Your task to perform on an android device: all mails in gmail Image 0: 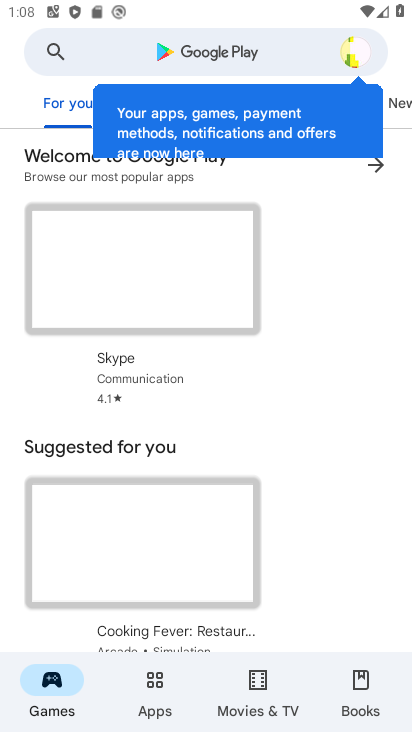
Step 0: press back button
Your task to perform on an android device: all mails in gmail Image 1: 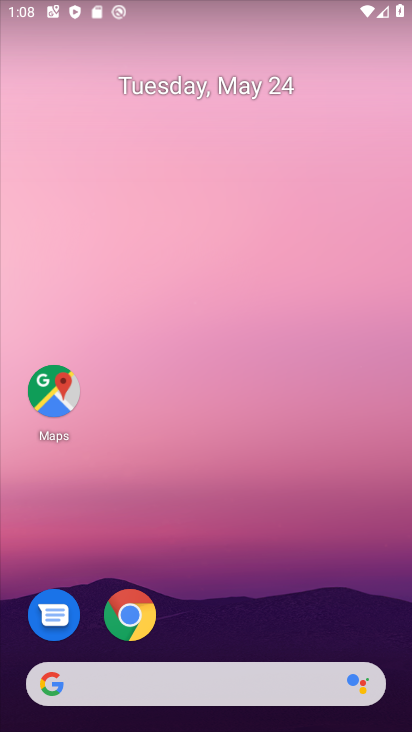
Step 1: drag from (195, 615) to (257, 119)
Your task to perform on an android device: all mails in gmail Image 2: 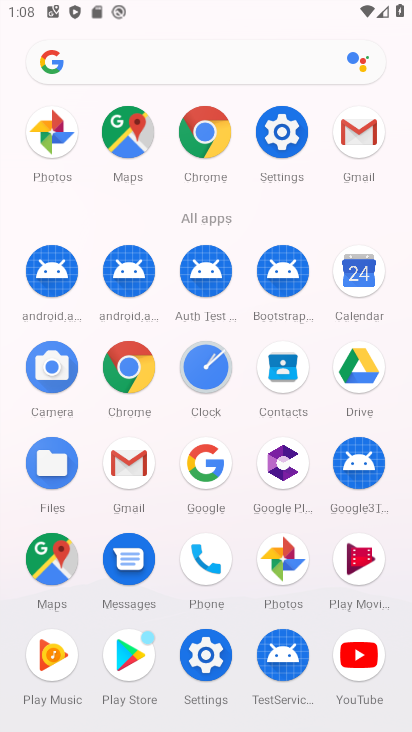
Step 2: click (346, 132)
Your task to perform on an android device: all mails in gmail Image 3: 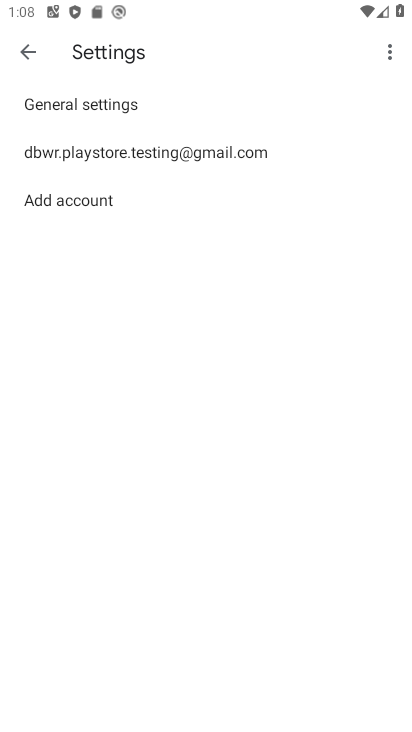
Step 3: click (22, 32)
Your task to perform on an android device: all mails in gmail Image 4: 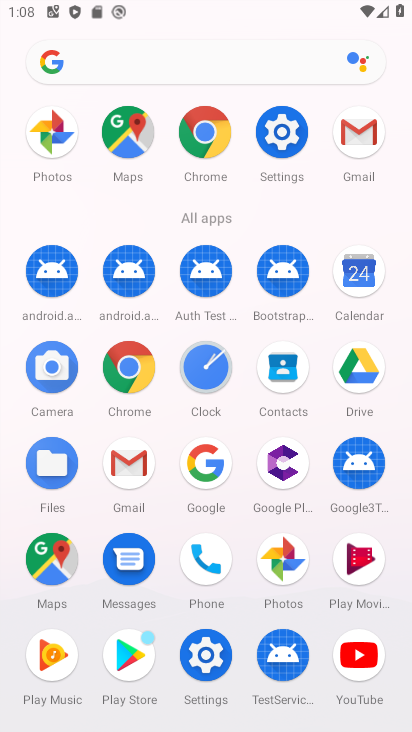
Step 4: click (377, 142)
Your task to perform on an android device: all mails in gmail Image 5: 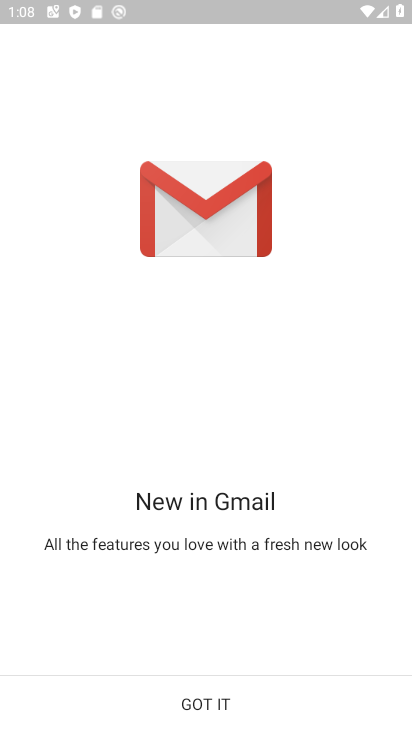
Step 5: click (202, 716)
Your task to perform on an android device: all mails in gmail Image 6: 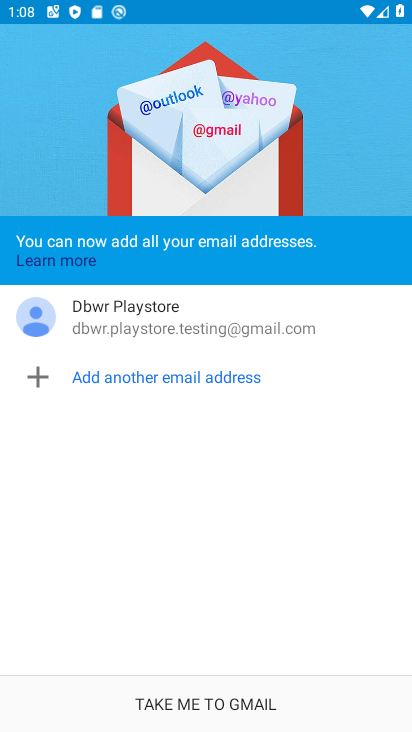
Step 6: click (200, 711)
Your task to perform on an android device: all mails in gmail Image 7: 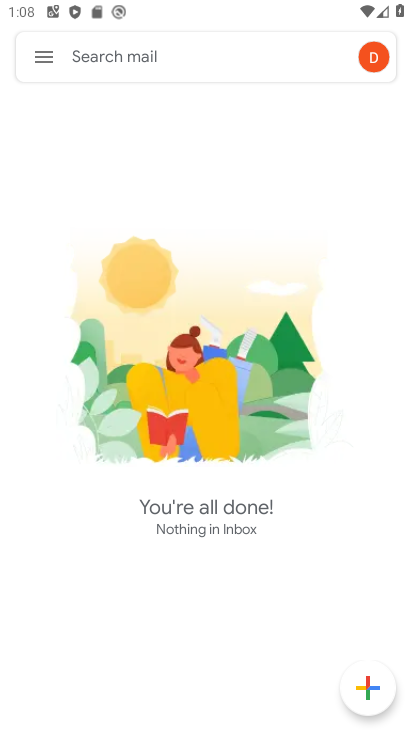
Step 7: click (44, 57)
Your task to perform on an android device: all mails in gmail Image 8: 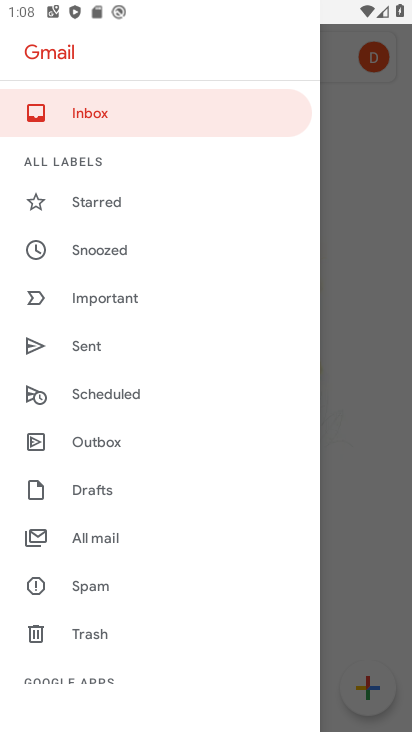
Step 8: click (139, 543)
Your task to perform on an android device: all mails in gmail Image 9: 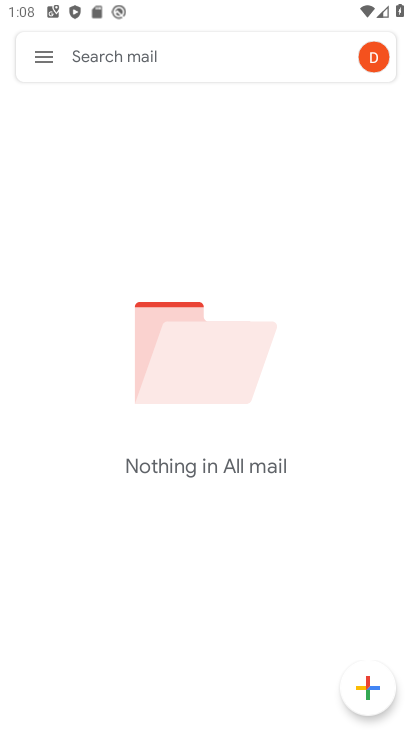
Step 9: task complete